Your task to perform on an android device: Open the stopwatch Image 0: 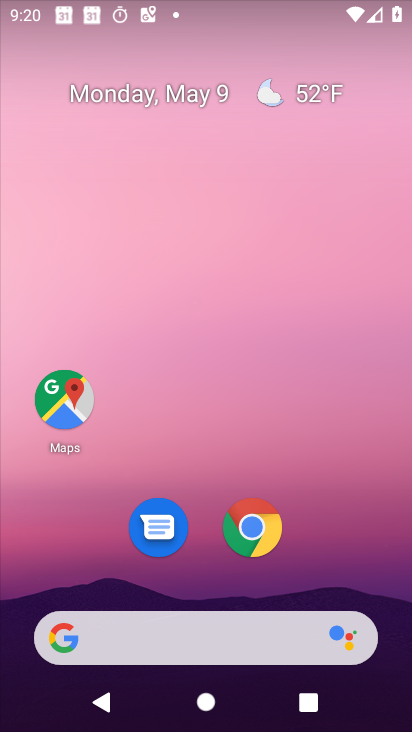
Step 0: press home button
Your task to perform on an android device: Open the stopwatch Image 1: 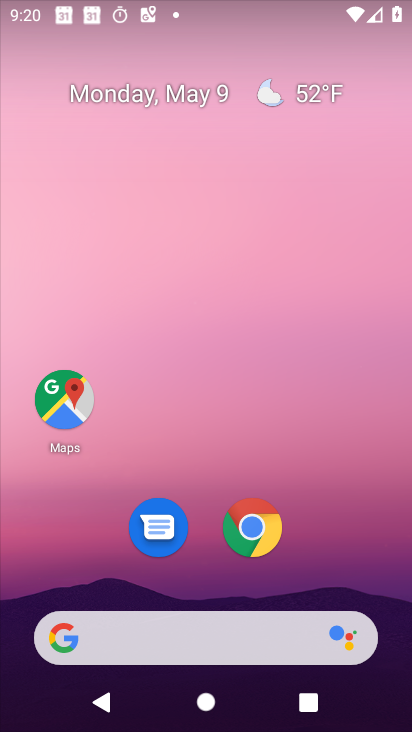
Step 1: drag from (341, 550) to (340, 235)
Your task to perform on an android device: Open the stopwatch Image 2: 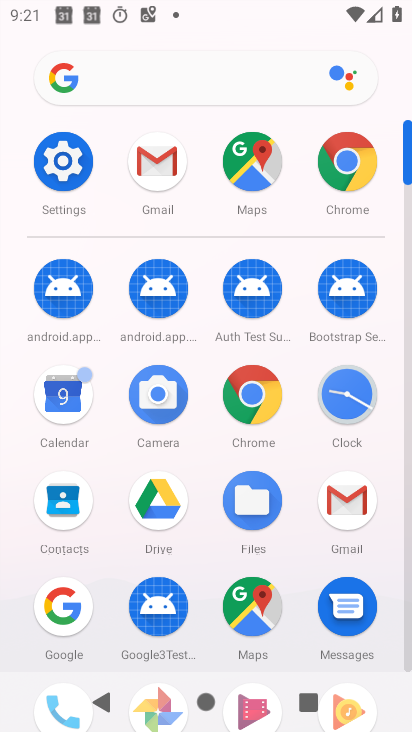
Step 2: drag from (306, 659) to (314, 280)
Your task to perform on an android device: Open the stopwatch Image 3: 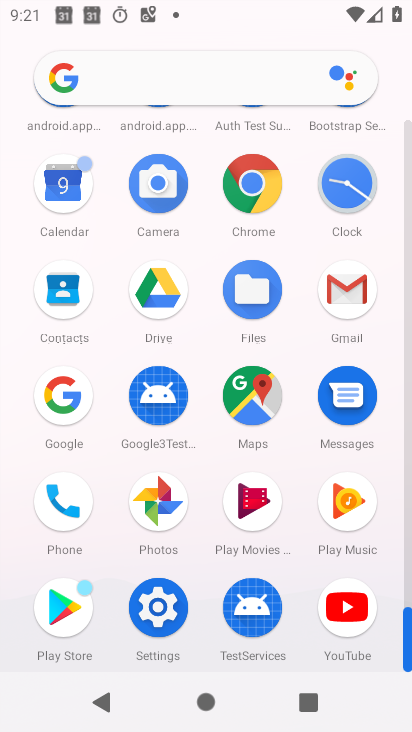
Step 3: click (345, 185)
Your task to perform on an android device: Open the stopwatch Image 4: 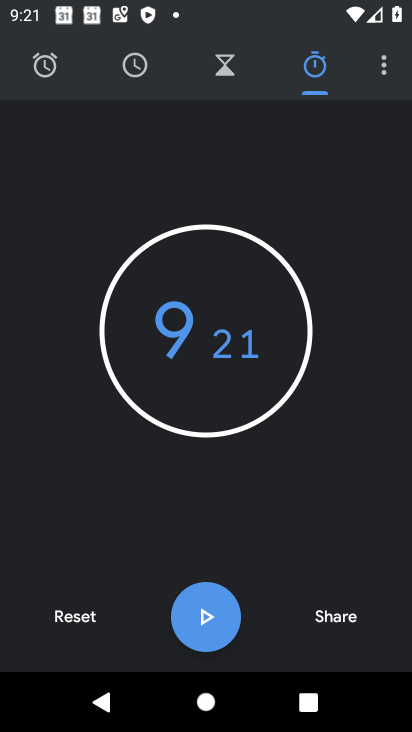
Step 4: click (81, 624)
Your task to perform on an android device: Open the stopwatch Image 5: 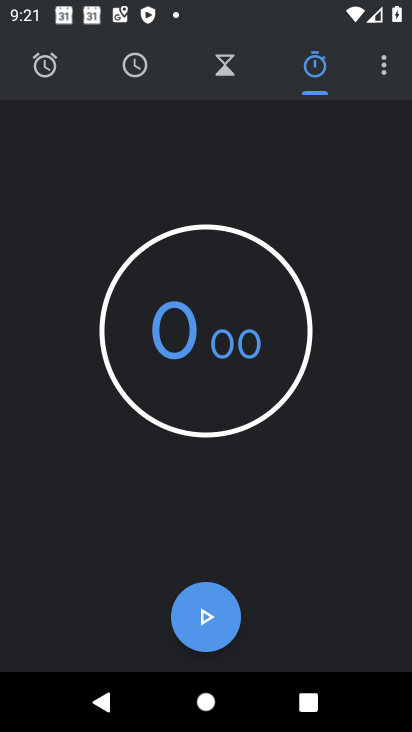
Step 5: click (198, 632)
Your task to perform on an android device: Open the stopwatch Image 6: 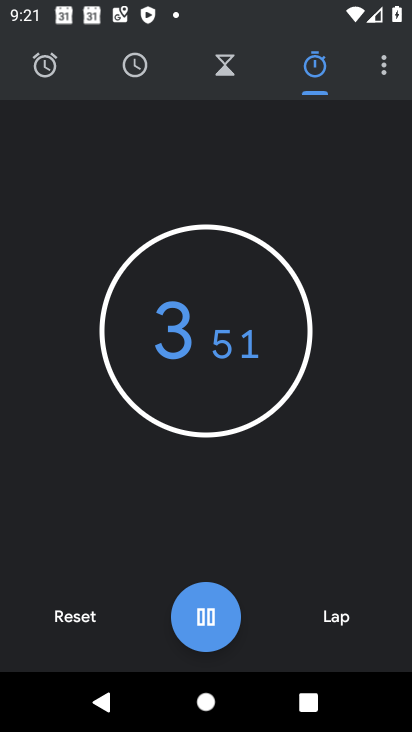
Step 6: click (192, 618)
Your task to perform on an android device: Open the stopwatch Image 7: 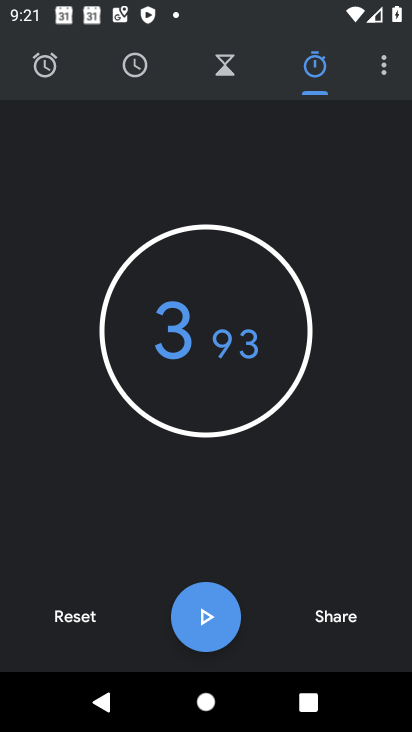
Step 7: task complete